Your task to perform on an android device: Open settings on Google Maps Image 0: 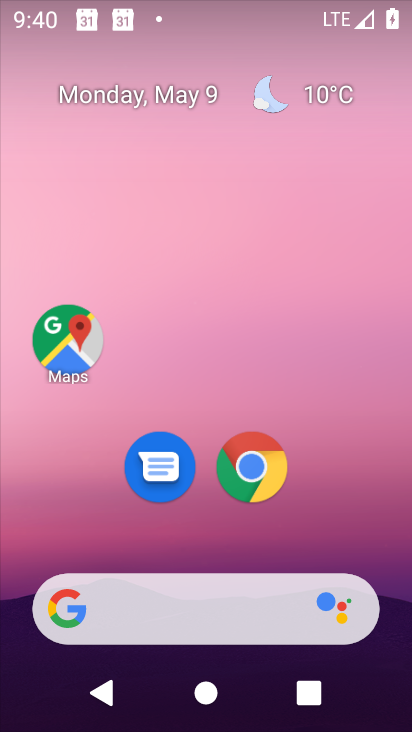
Step 0: click (69, 345)
Your task to perform on an android device: Open settings on Google Maps Image 1: 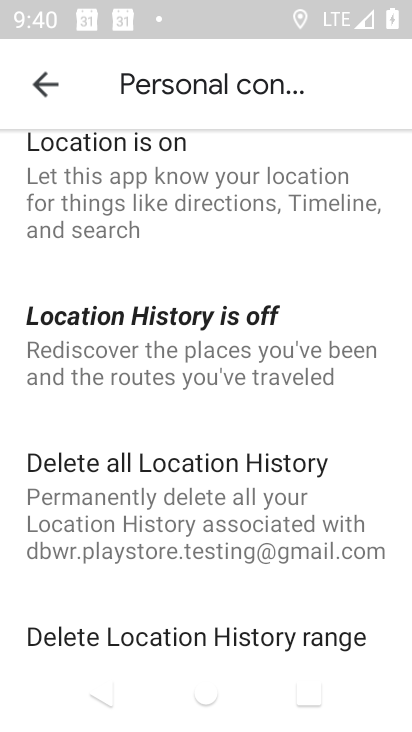
Step 1: click (41, 84)
Your task to perform on an android device: Open settings on Google Maps Image 2: 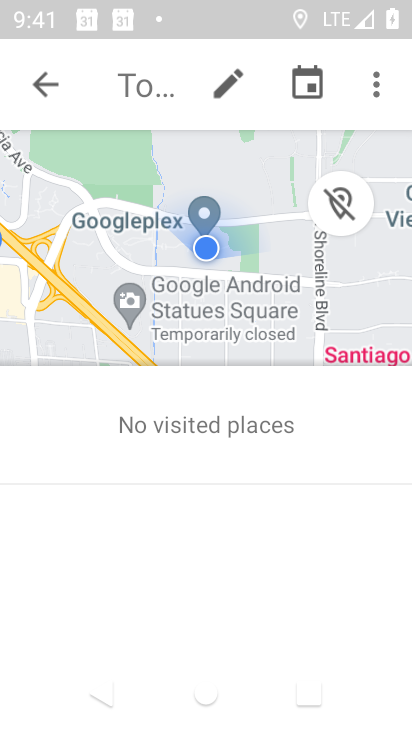
Step 2: click (45, 85)
Your task to perform on an android device: Open settings on Google Maps Image 3: 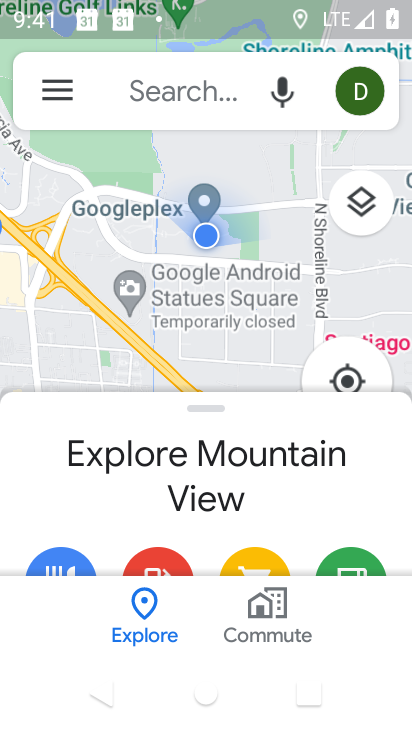
Step 3: click (45, 85)
Your task to perform on an android device: Open settings on Google Maps Image 4: 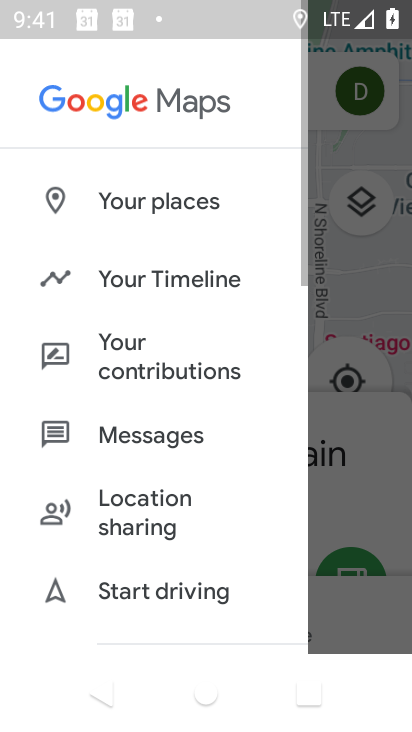
Step 4: drag from (209, 562) to (165, 1)
Your task to perform on an android device: Open settings on Google Maps Image 5: 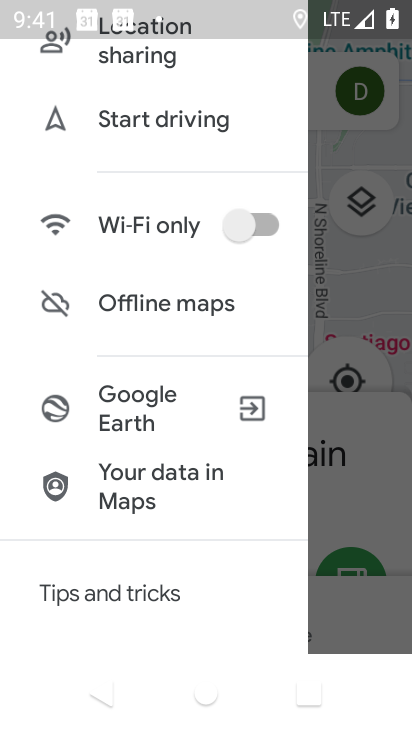
Step 5: drag from (205, 545) to (179, 60)
Your task to perform on an android device: Open settings on Google Maps Image 6: 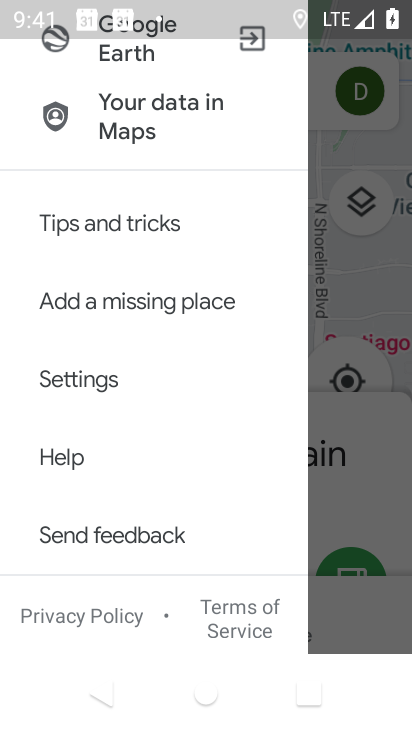
Step 6: click (79, 382)
Your task to perform on an android device: Open settings on Google Maps Image 7: 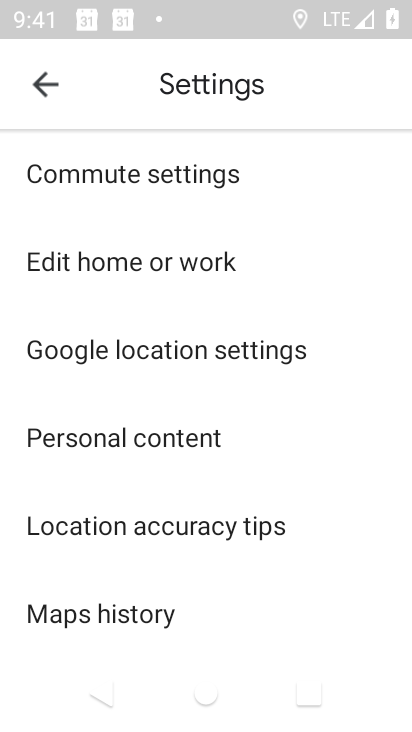
Step 7: task complete